Your task to perform on an android device: Open display settings Image 0: 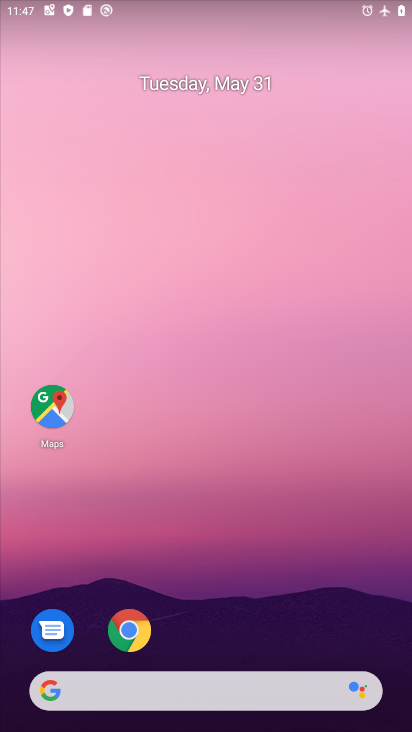
Step 0: drag from (137, 730) to (162, 194)
Your task to perform on an android device: Open display settings Image 1: 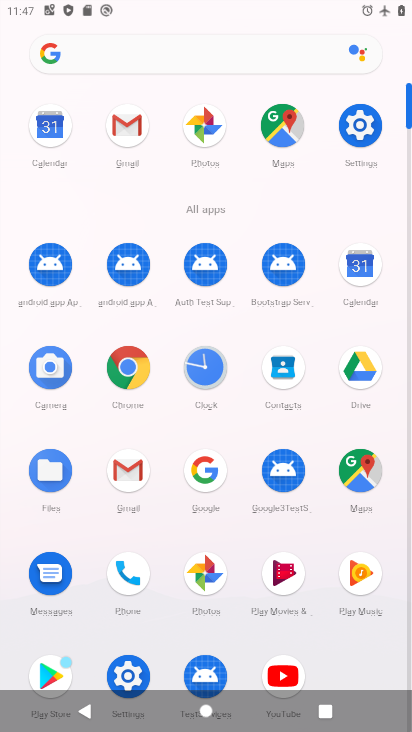
Step 1: click (349, 126)
Your task to perform on an android device: Open display settings Image 2: 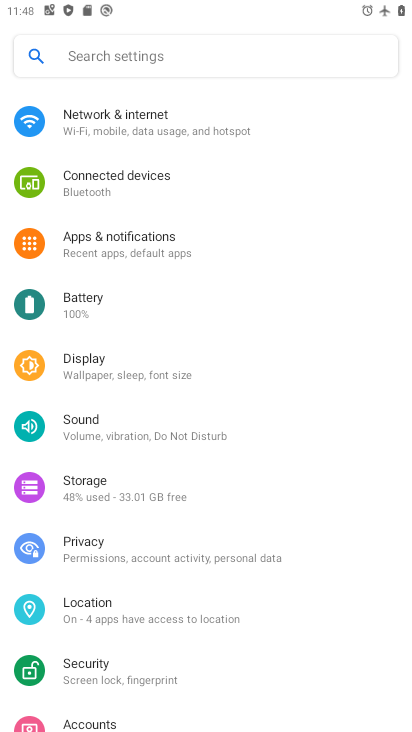
Step 2: click (92, 371)
Your task to perform on an android device: Open display settings Image 3: 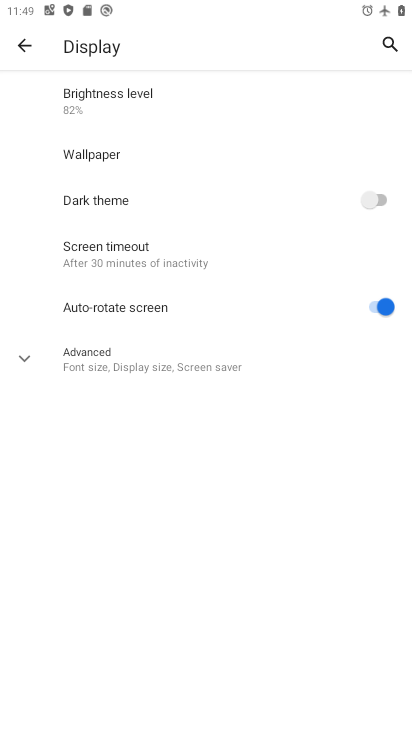
Step 3: task complete